Your task to perform on an android device: Open Amazon Image 0: 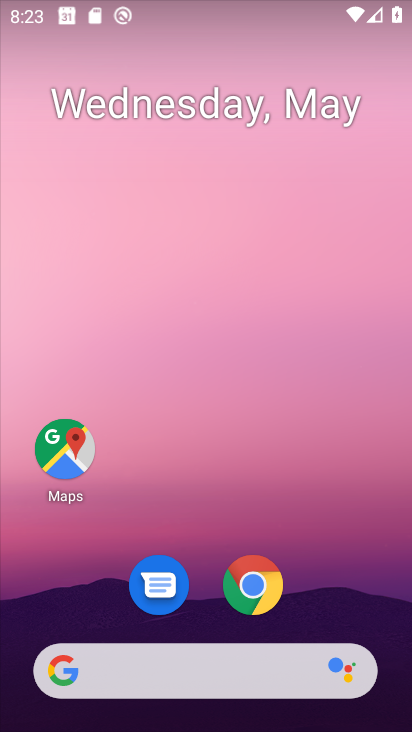
Step 0: click (272, 667)
Your task to perform on an android device: Open Amazon Image 1: 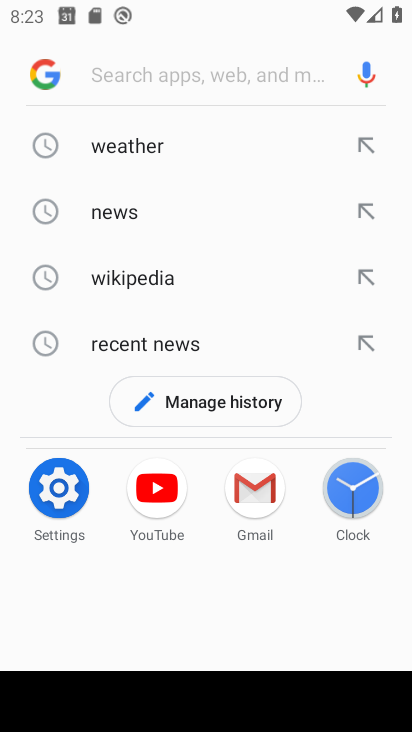
Step 1: type "amazon"
Your task to perform on an android device: Open Amazon Image 2: 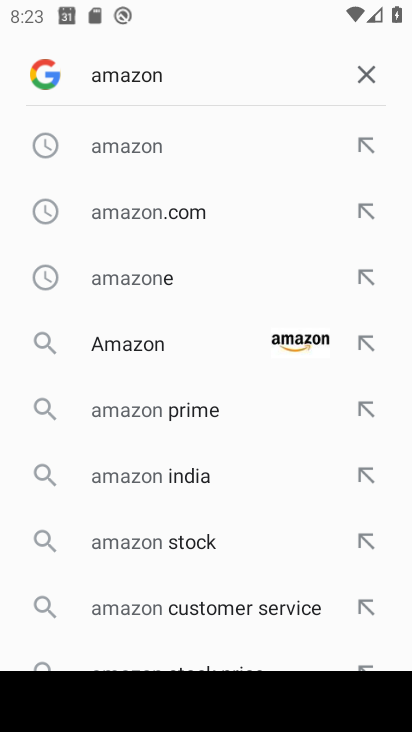
Step 2: click (134, 351)
Your task to perform on an android device: Open Amazon Image 3: 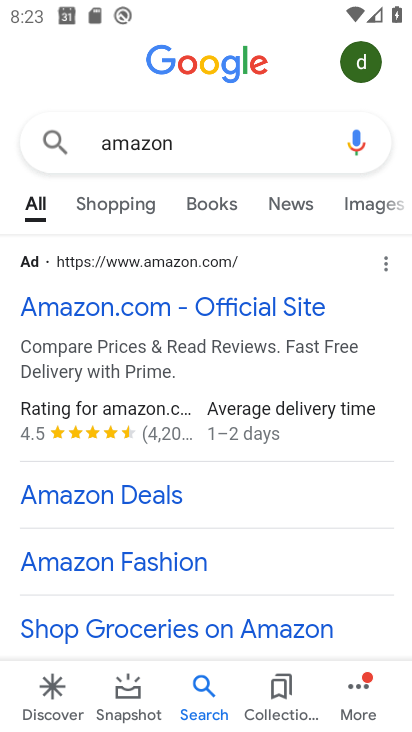
Step 3: click (102, 305)
Your task to perform on an android device: Open Amazon Image 4: 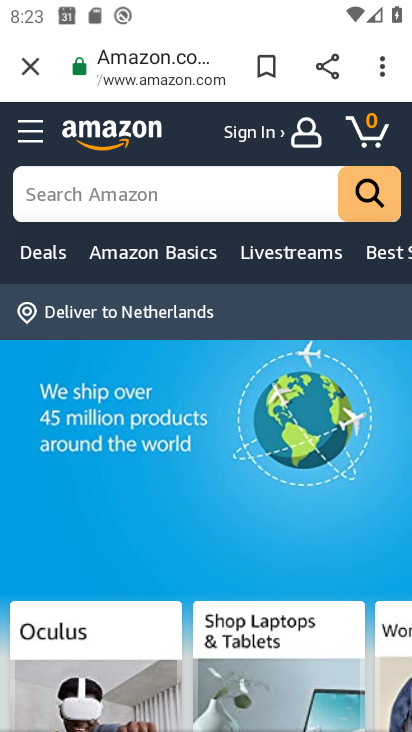
Step 4: task complete